Your task to perform on an android device: Set an alarm for 6pm Image 0: 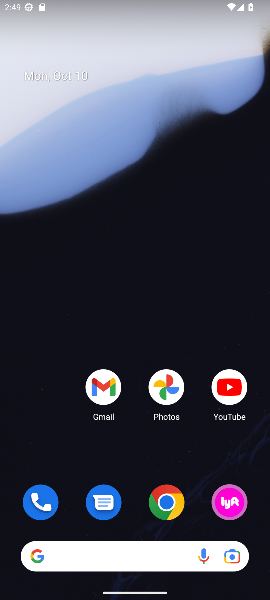
Step 0: drag from (139, 520) to (83, 91)
Your task to perform on an android device: Set an alarm for 6pm Image 1: 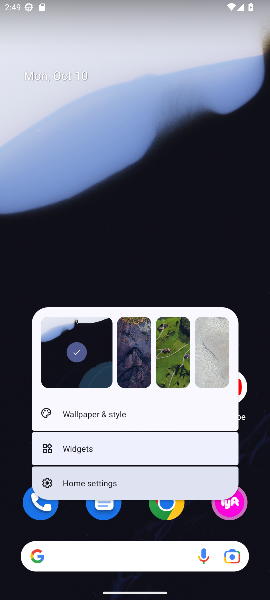
Step 1: click (94, 178)
Your task to perform on an android device: Set an alarm for 6pm Image 2: 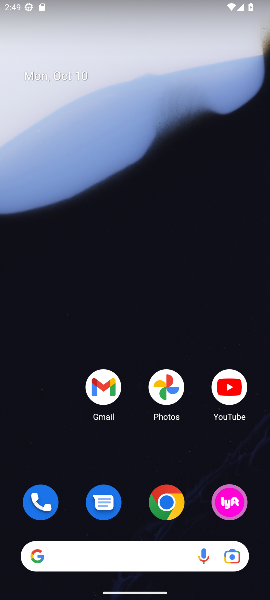
Step 2: drag from (112, 103) to (98, 58)
Your task to perform on an android device: Set an alarm for 6pm Image 3: 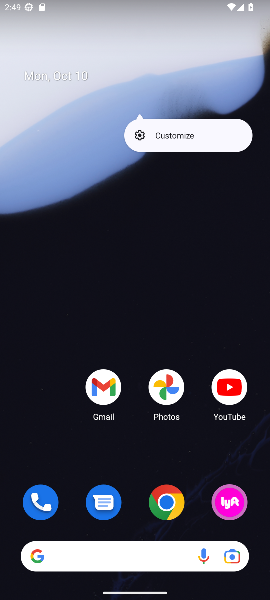
Step 3: drag from (140, 531) to (205, 58)
Your task to perform on an android device: Set an alarm for 6pm Image 4: 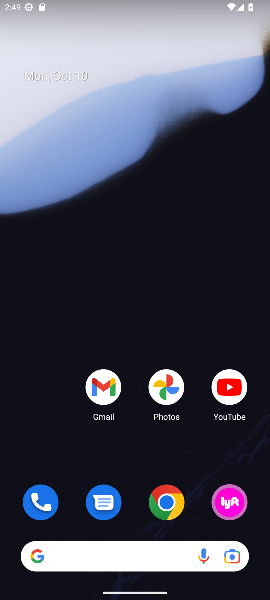
Step 4: drag from (129, 459) to (161, 186)
Your task to perform on an android device: Set an alarm for 6pm Image 5: 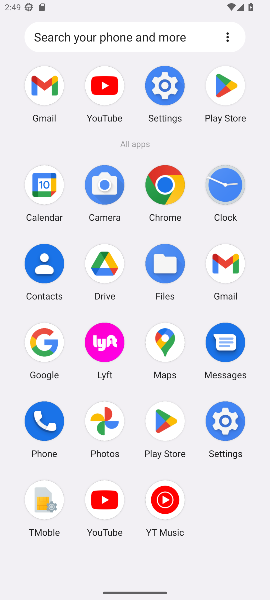
Step 5: click (222, 192)
Your task to perform on an android device: Set an alarm for 6pm Image 6: 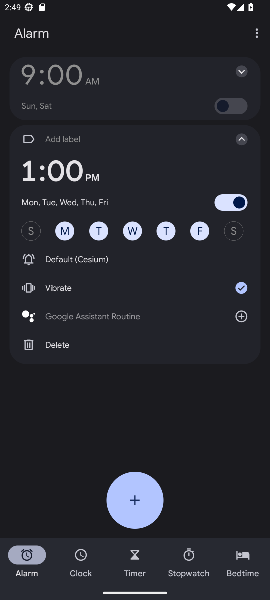
Step 6: click (67, 74)
Your task to perform on an android device: Set an alarm for 6pm Image 7: 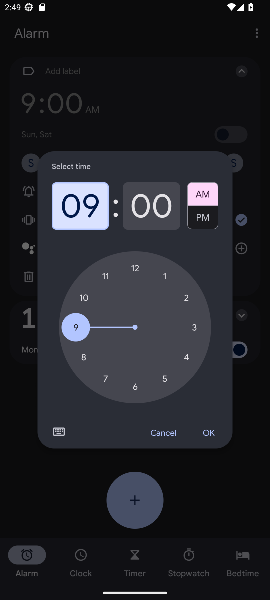
Step 7: click (132, 390)
Your task to perform on an android device: Set an alarm for 6pm Image 8: 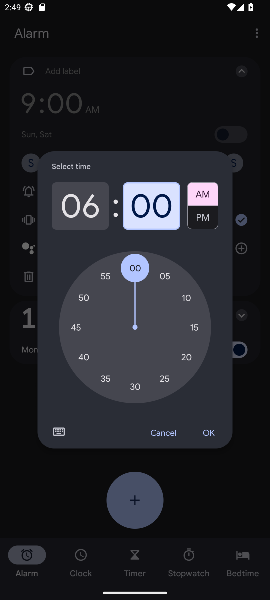
Step 8: click (201, 217)
Your task to perform on an android device: Set an alarm for 6pm Image 9: 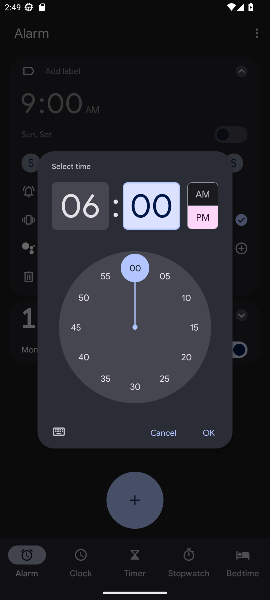
Step 9: click (208, 433)
Your task to perform on an android device: Set an alarm for 6pm Image 10: 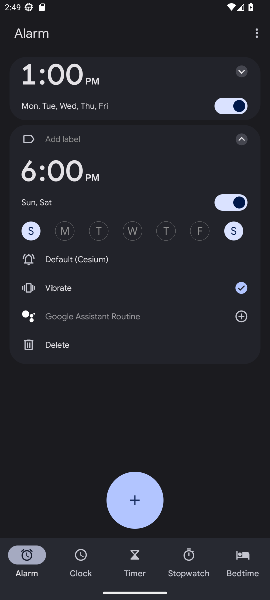
Step 10: task complete